Your task to perform on an android device: See recent photos Image 0: 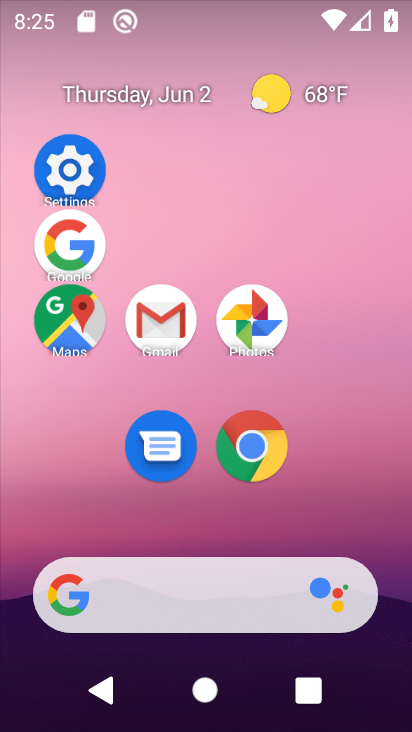
Step 0: click (264, 316)
Your task to perform on an android device: See recent photos Image 1: 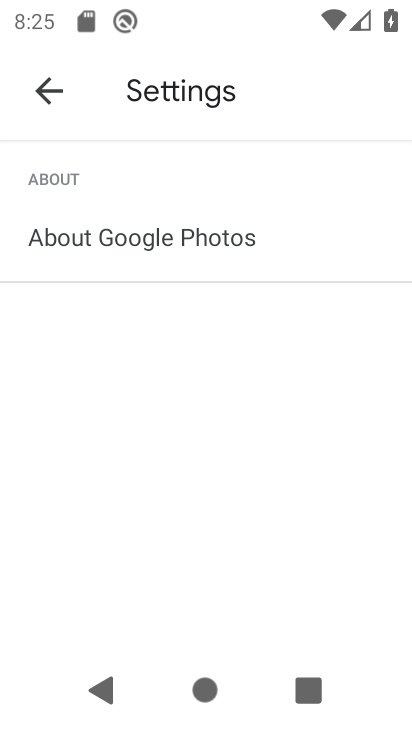
Step 1: click (56, 123)
Your task to perform on an android device: See recent photos Image 2: 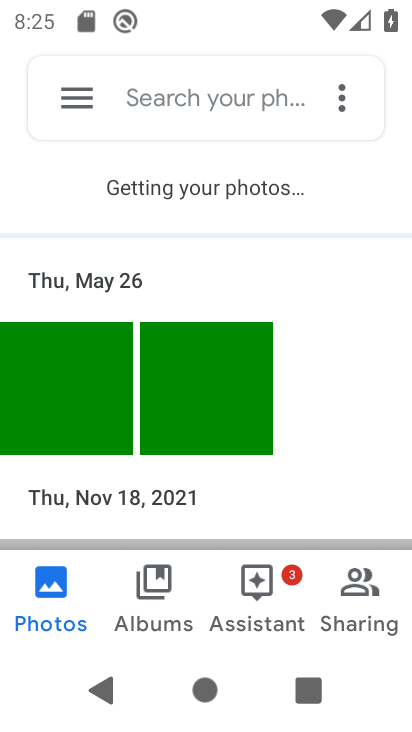
Step 2: task complete